Your task to perform on an android device: Search for Mexican restaurants on Maps Image 0: 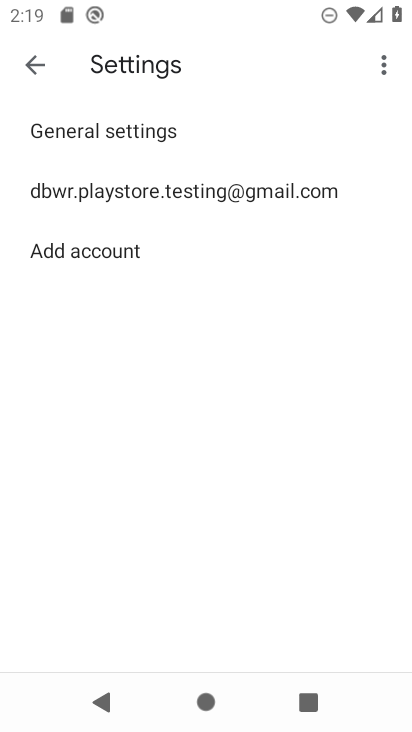
Step 0: press back button
Your task to perform on an android device: Search for Mexican restaurants on Maps Image 1: 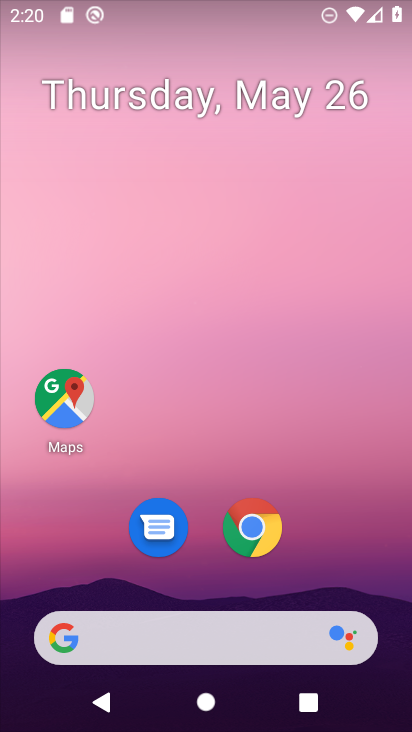
Step 1: click (76, 398)
Your task to perform on an android device: Search for Mexican restaurants on Maps Image 2: 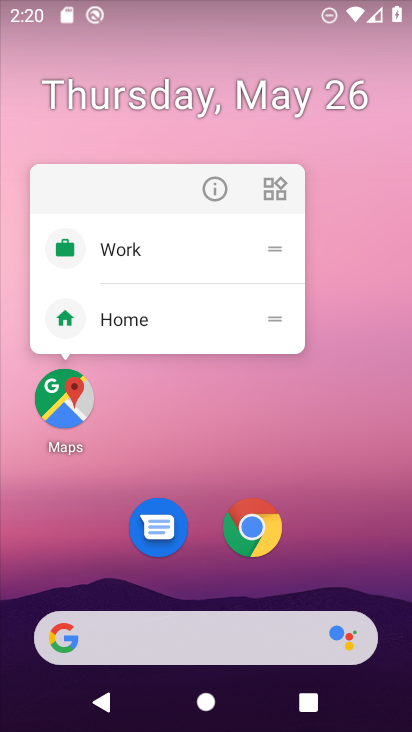
Step 2: click (71, 399)
Your task to perform on an android device: Search for Mexican restaurants on Maps Image 3: 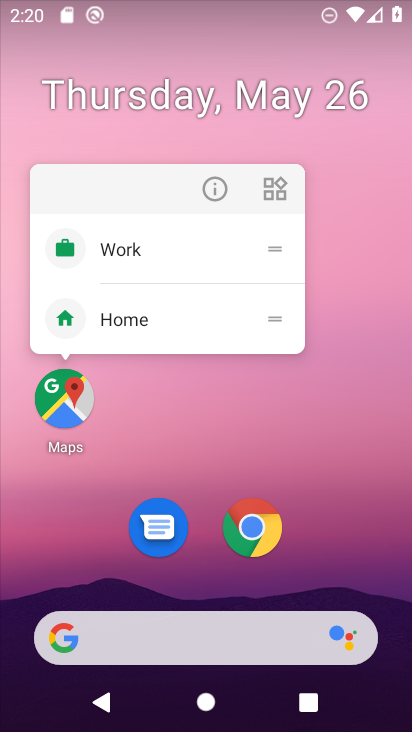
Step 3: click (63, 403)
Your task to perform on an android device: Search for Mexican restaurants on Maps Image 4: 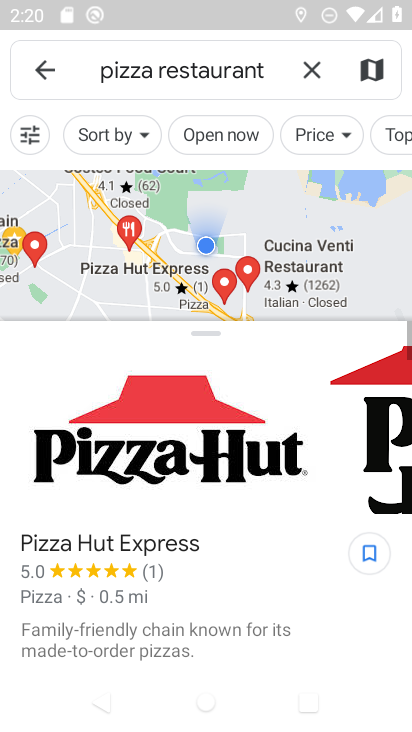
Step 4: click (309, 57)
Your task to perform on an android device: Search for Mexican restaurants on Maps Image 5: 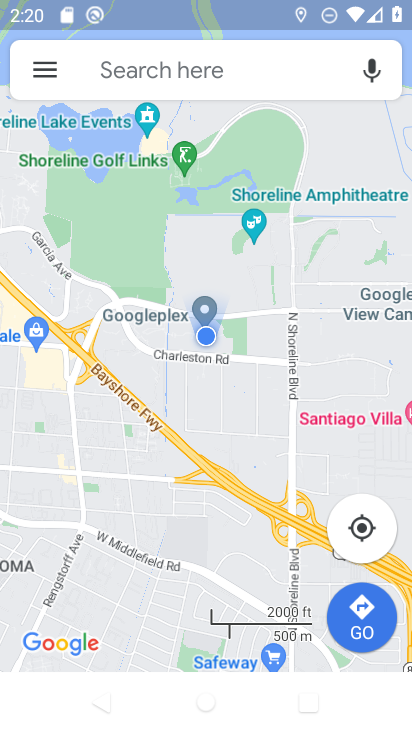
Step 5: click (180, 71)
Your task to perform on an android device: Search for Mexican restaurants on Maps Image 6: 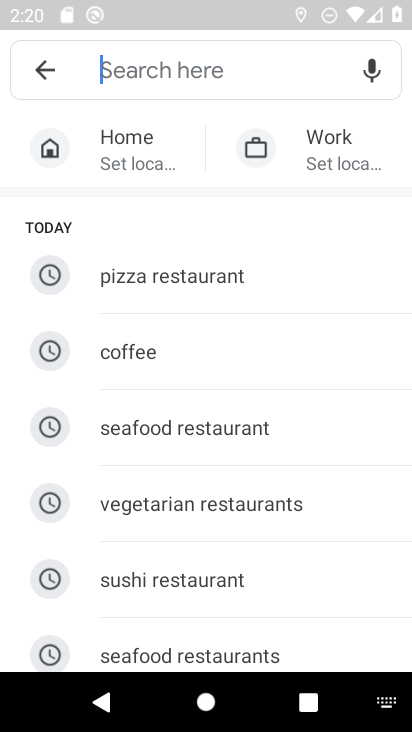
Step 6: drag from (190, 552) to (266, 125)
Your task to perform on an android device: Search for Mexican restaurants on Maps Image 7: 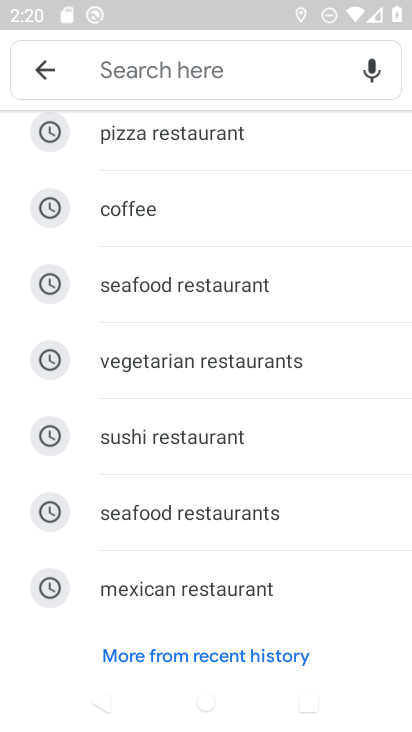
Step 7: click (142, 571)
Your task to perform on an android device: Search for Mexican restaurants on Maps Image 8: 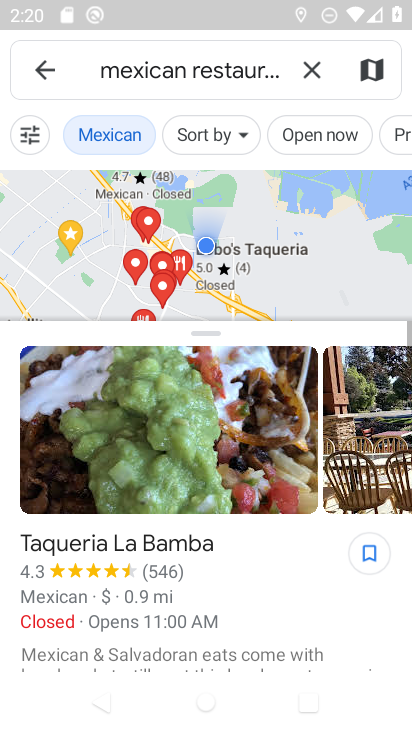
Step 8: task complete